Your task to perform on an android device: When is my next appointment? Image 0: 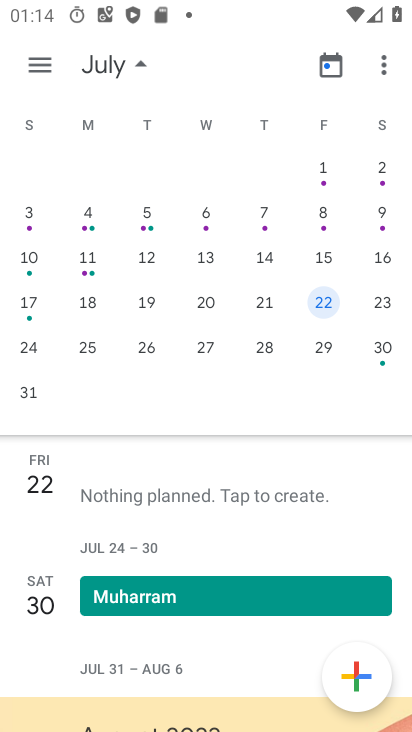
Step 0: press home button
Your task to perform on an android device: When is my next appointment? Image 1: 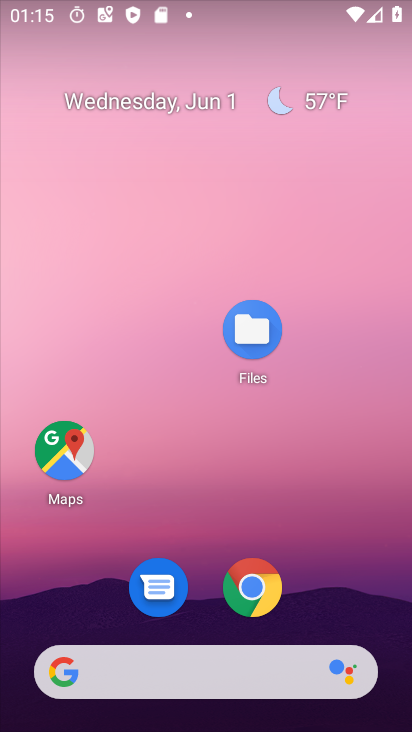
Step 1: drag from (384, 702) to (221, 164)
Your task to perform on an android device: When is my next appointment? Image 2: 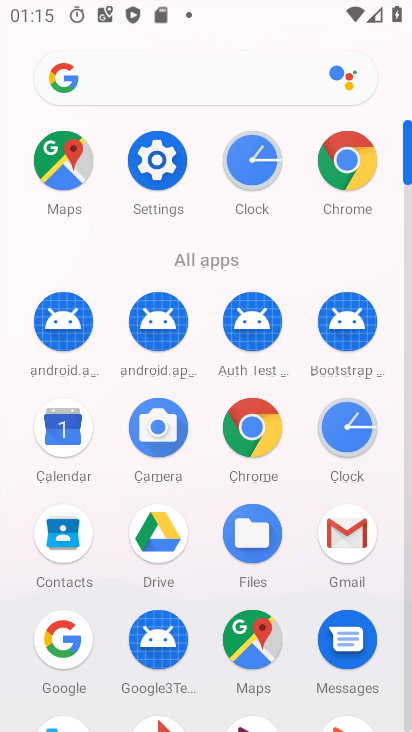
Step 2: click (73, 416)
Your task to perform on an android device: When is my next appointment? Image 3: 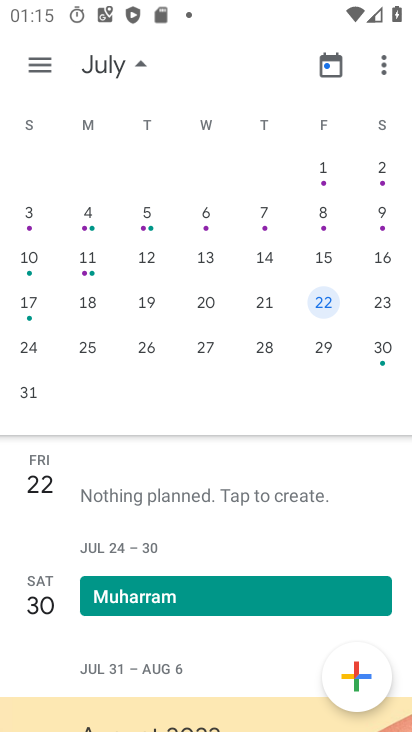
Step 3: drag from (70, 294) to (353, 203)
Your task to perform on an android device: When is my next appointment? Image 4: 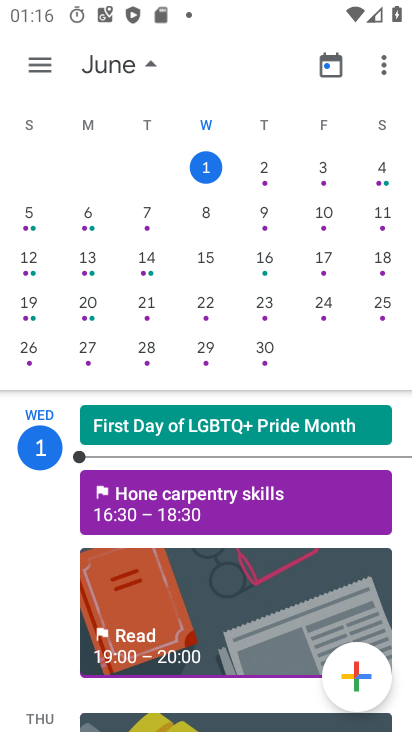
Step 4: click (117, 69)
Your task to perform on an android device: When is my next appointment? Image 5: 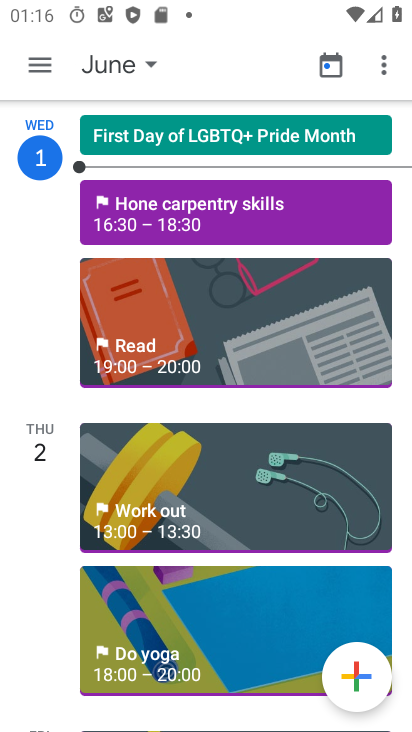
Step 5: task complete